Your task to perform on an android device: delete the emails in spam in the gmail app Image 0: 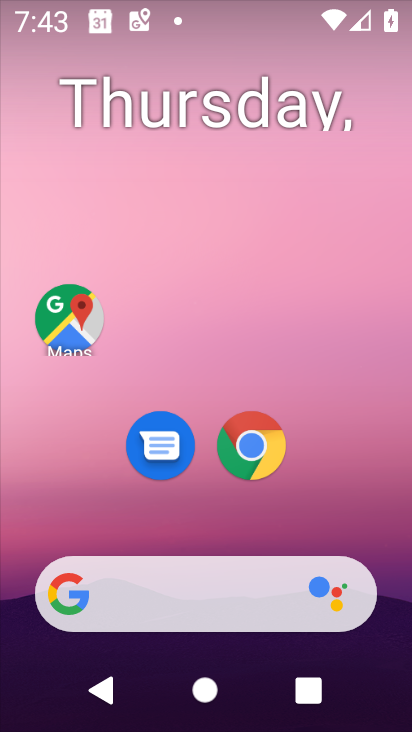
Step 0: drag from (395, 615) to (287, 91)
Your task to perform on an android device: delete the emails in spam in the gmail app Image 1: 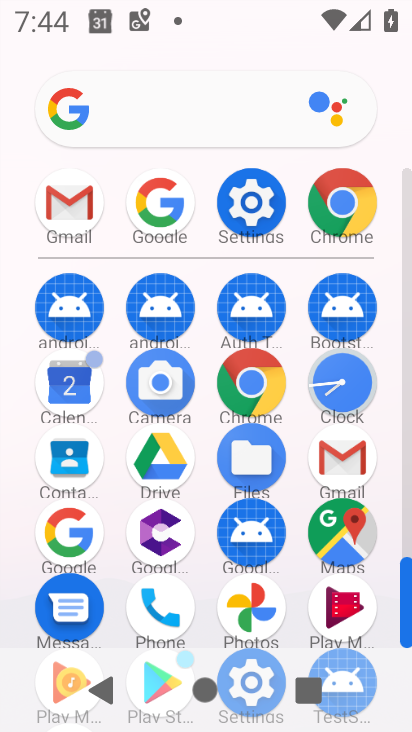
Step 1: click (348, 451)
Your task to perform on an android device: delete the emails in spam in the gmail app Image 2: 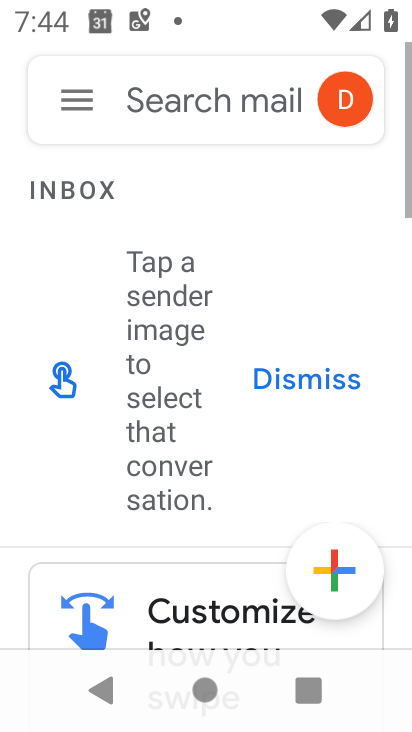
Step 2: click (71, 100)
Your task to perform on an android device: delete the emails in spam in the gmail app Image 3: 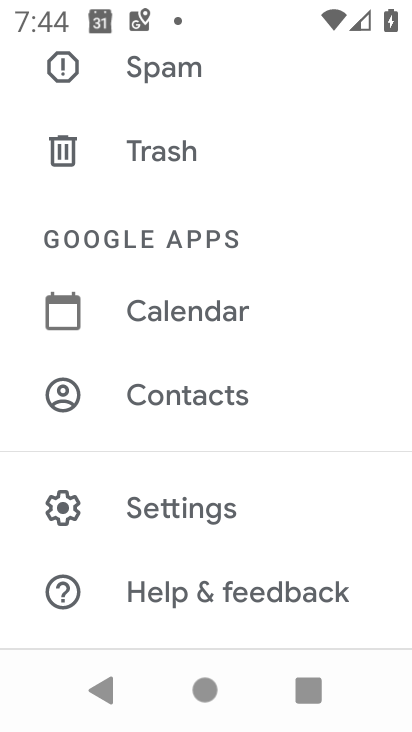
Step 3: click (165, 87)
Your task to perform on an android device: delete the emails in spam in the gmail app Image 4: 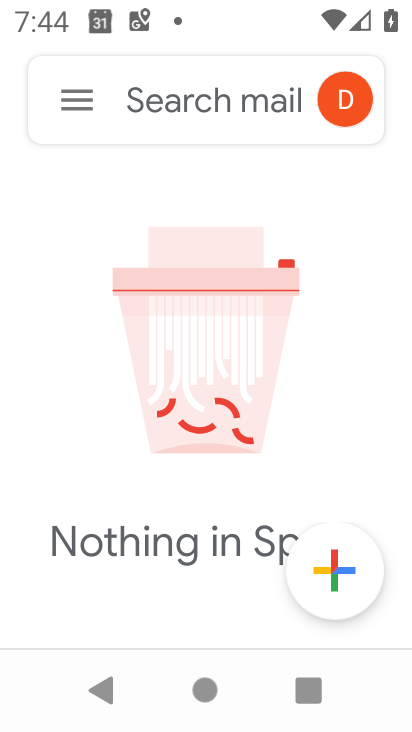
Step 4: task complete